Your task to perform on an android device: uninstall "McDonald's" Image 0: 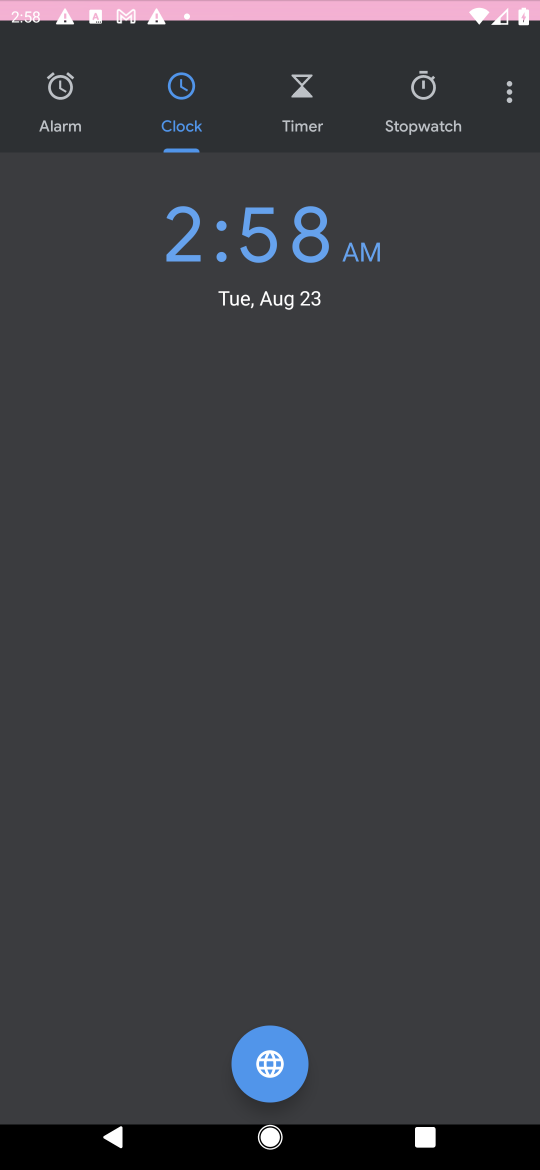
Step 0: press home button
Your task to perform on an android device: uninstall "McDonald's" Image 1: 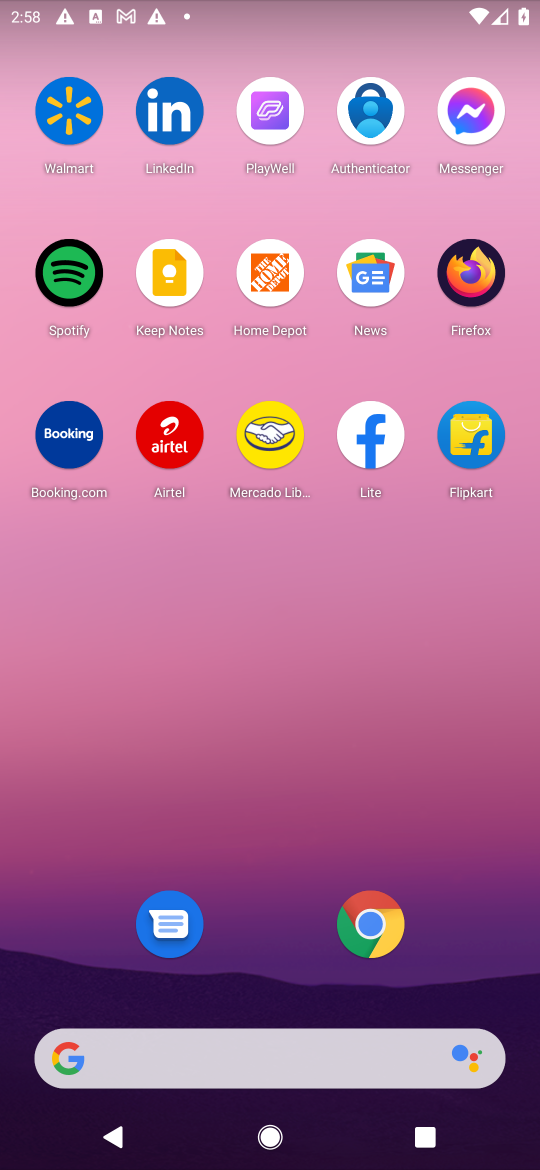
Step 1: drag from (487, 958) to (483, 185)
Your task to perform on an android device: uninstall "McDonald's" Image 2: 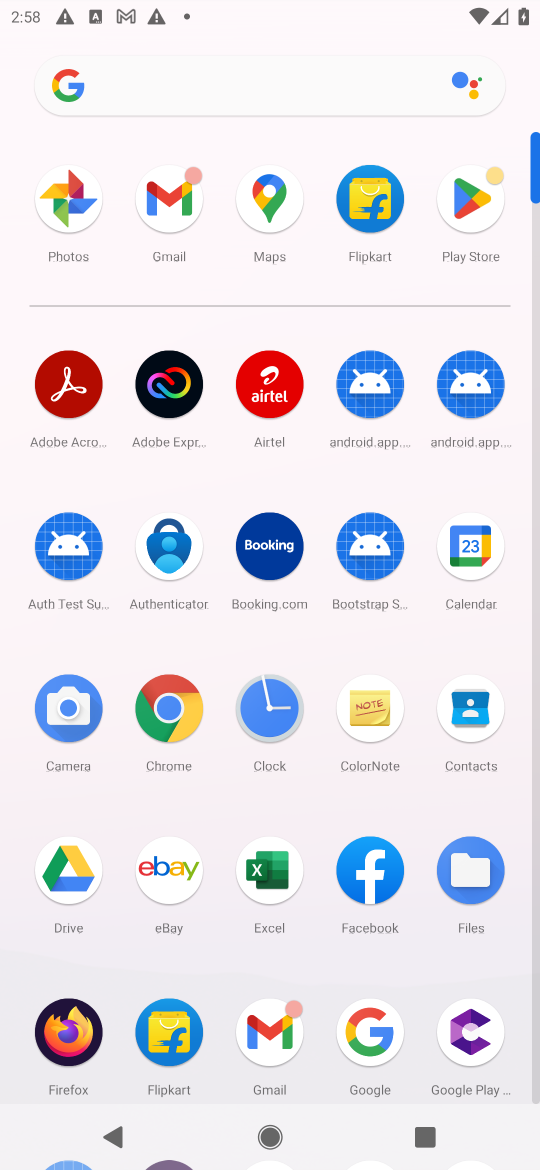
Step 2: click (460, 199)
Your task to perform on an android device: uninstall "McDonald's" Image 3: 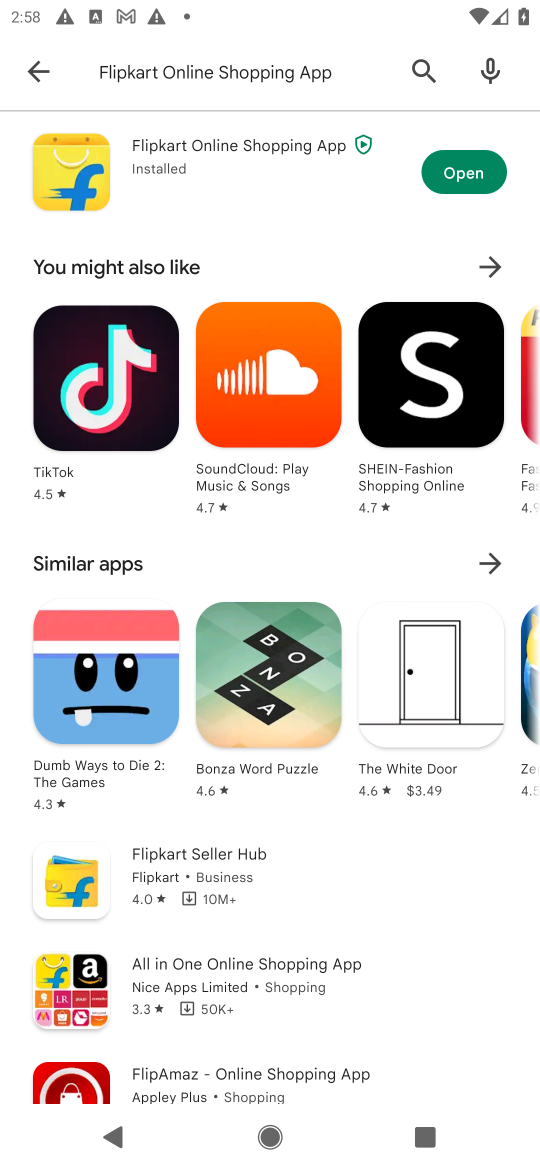
Step 3: press back button
Your task to perform on an android device: uninstall "McDonald's" Image 4: 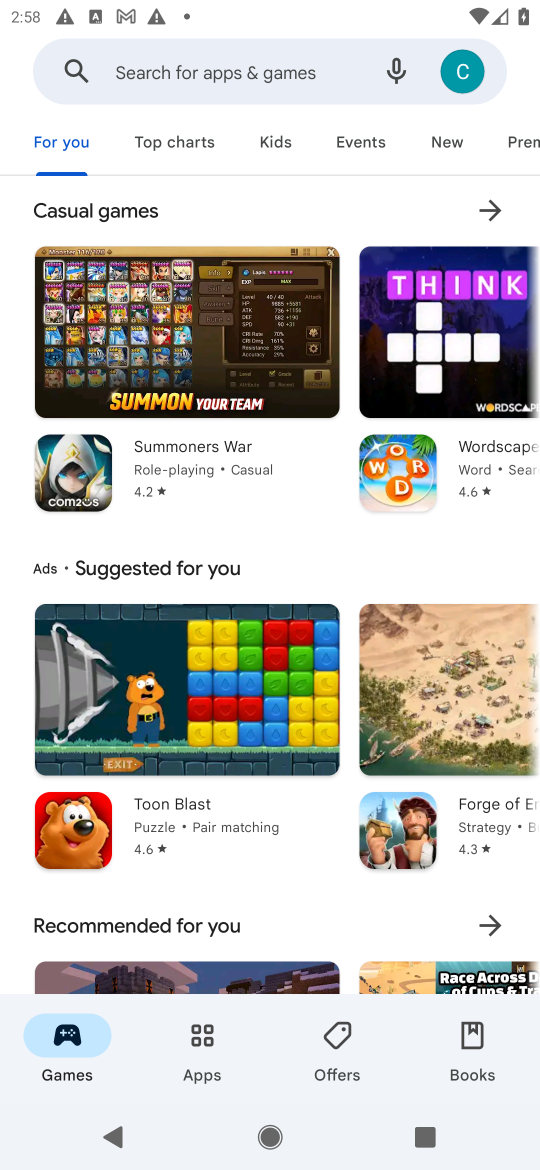
Step 4: click (196, 78)
Your task to perform on an android device: uninstall "McDonald's" Image 5: 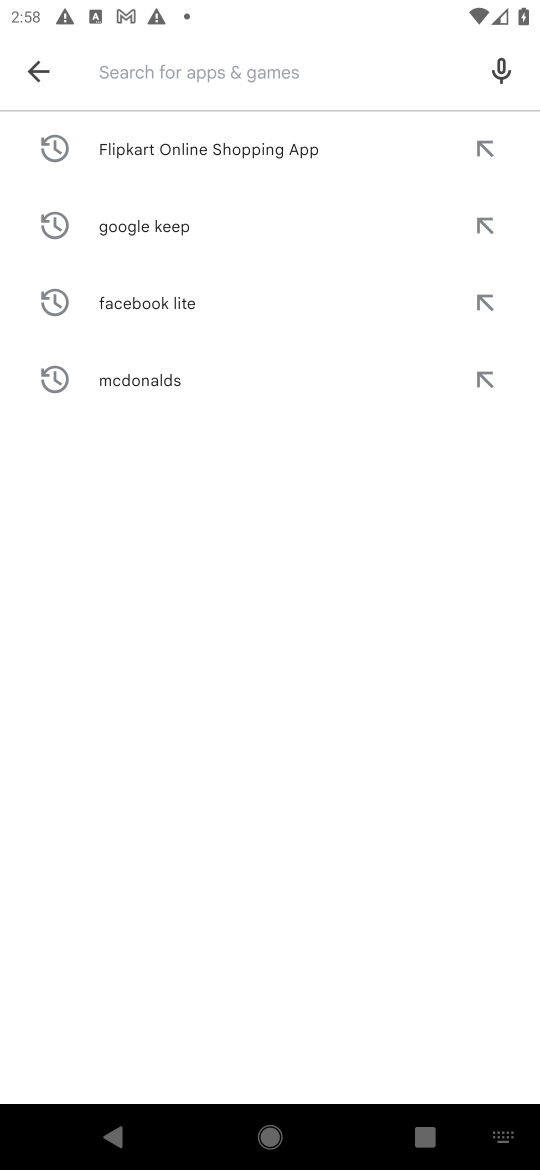
Step 5: type "mcdonalds"
Your task to perform on an android device: uninstall "McDonald's" Image 6: 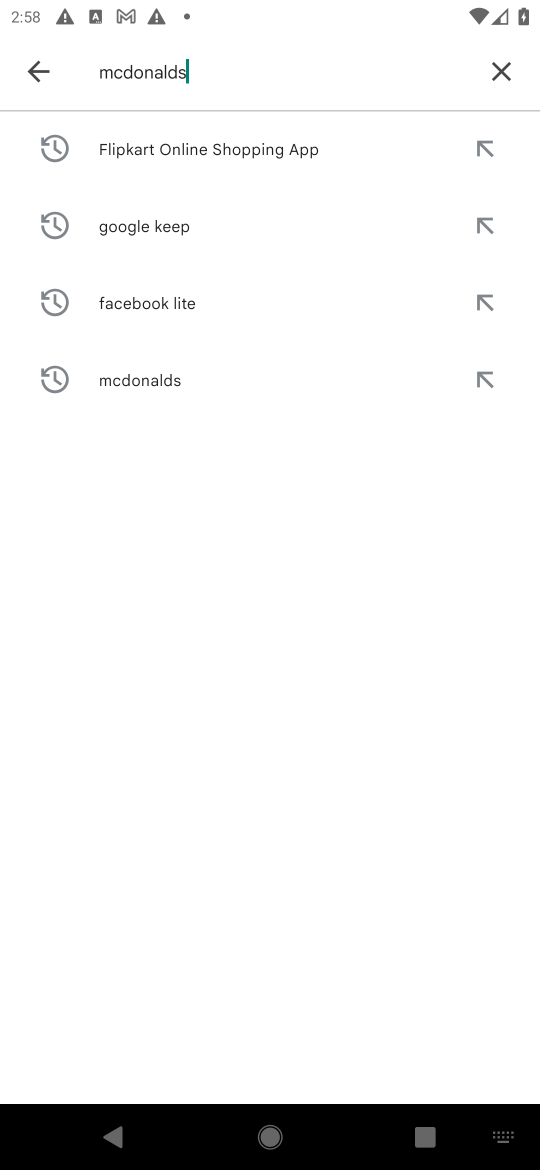
Step 6: press enter
Your task to perform on an android device: uninstall "McDonald's" Image 7: 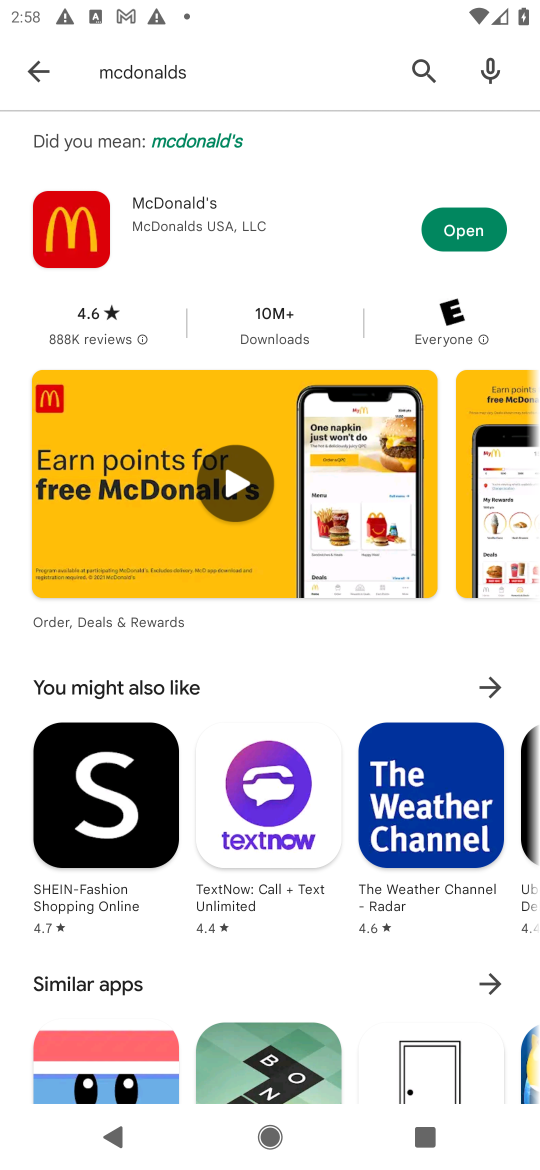
Step 7: task complete